Your task to perform on an android device: set default search engine in the chrome app Image 0: 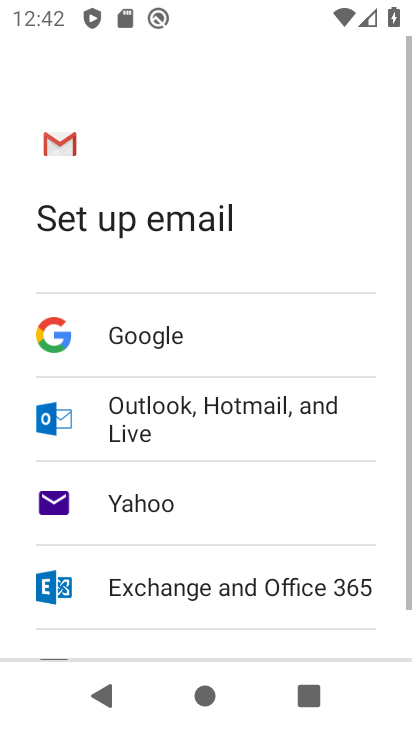
Step 0: press back button
Your task to perform on an android device: set default search engine in the chrome app Image 1: 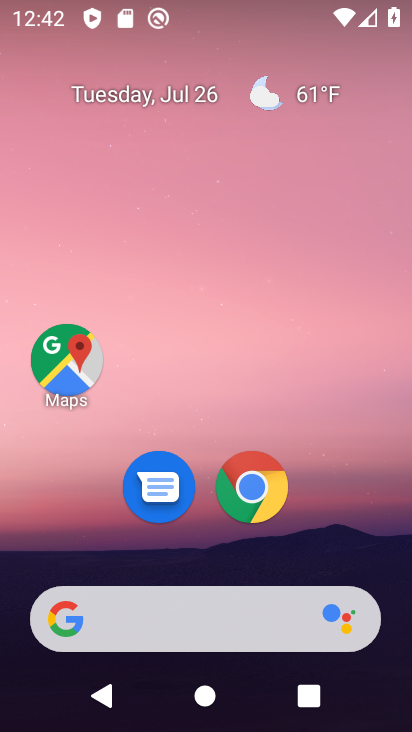
Step 1: click (249, 487)
Your task to perform on an android device: set default search engine in the chrome app Image 2: 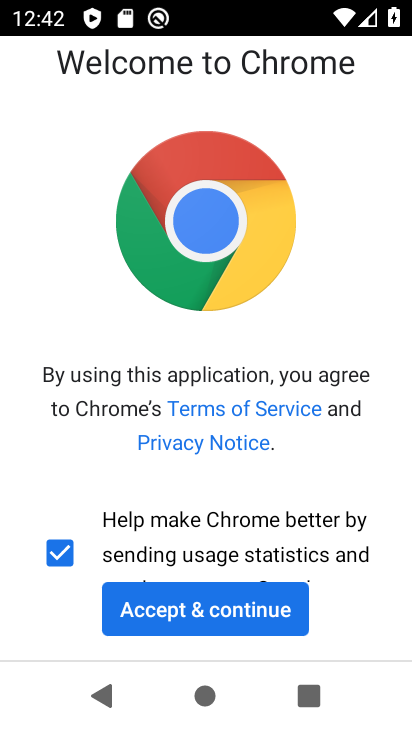
Step 2: click (180, 592)
Your task to perform on an android device: set default search engine in the chrome app Image 3: 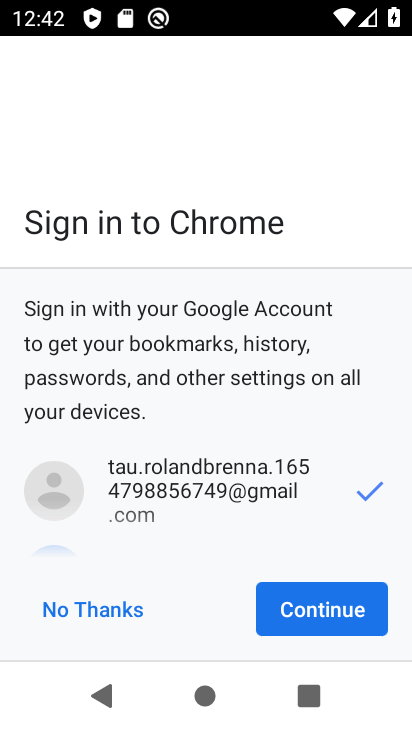
Step 3: click (350, 610)
Your task to perform on an android device: set default search engine in the chrome app Image 4: 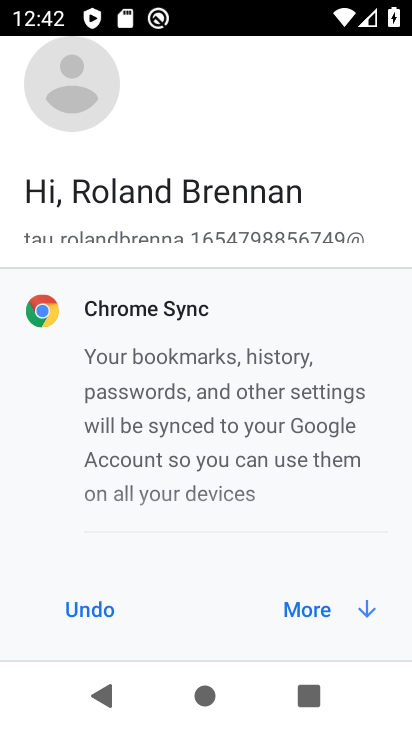
Step 4: click (345, 608)
Your task to perform on an android device: set default search engine in the chrome app Image 5: 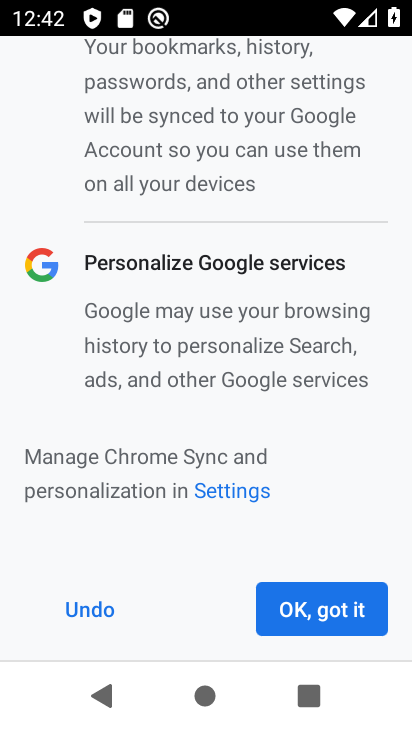
Step 5: click (343, 610)
Your task to perform on an android device: set default search engine in the chrome app Image 6: 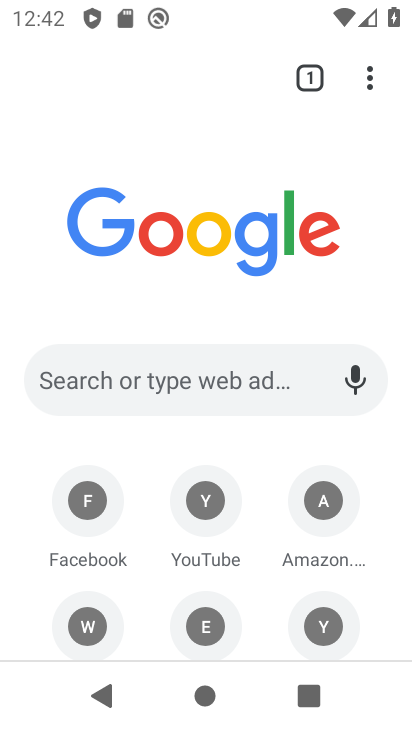
Step 6: drag from (360, 78) to (128, 550)
Your task to perform on an android device: set default search engine in the chrome app Image 7: 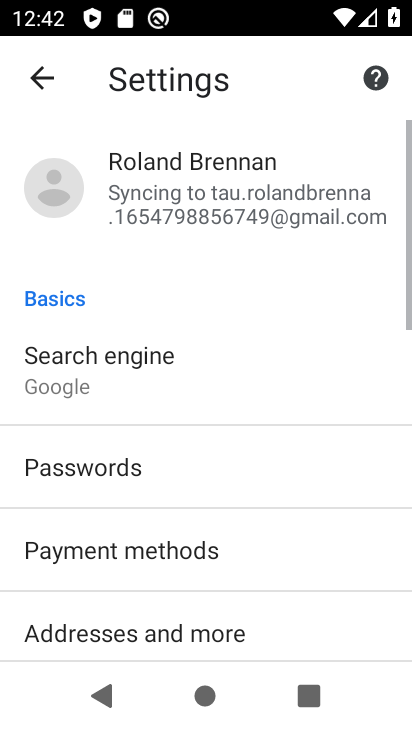
Step 7: drag from (109, 599) to (191, 228)
Your task to perform on an android device: set default search engine in the chrome app Image 8: 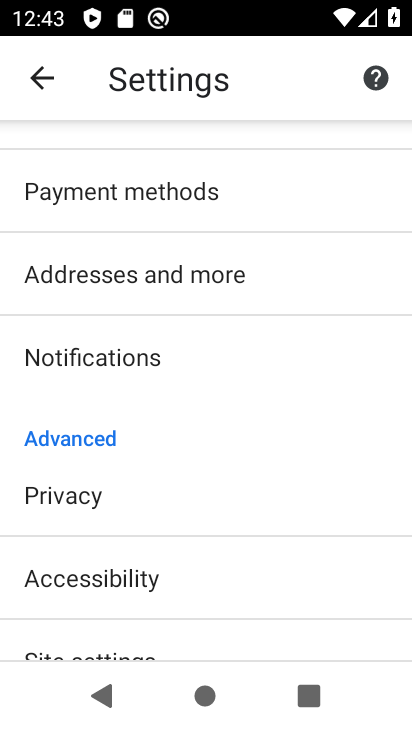
Step 8: drag from (195, 201) to (187, 706)
Your task to perform on an android device: set default search engine in the chrome app Image 9: 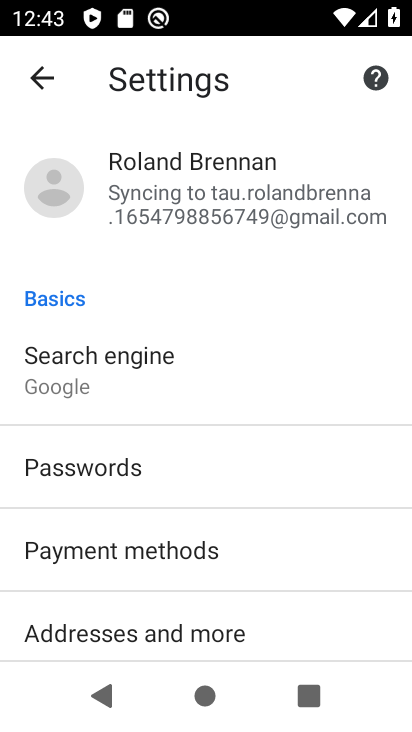
Step 9: click (119, 374)
Your task to perform on an android device: set default search engine in the chrome app Image 10: 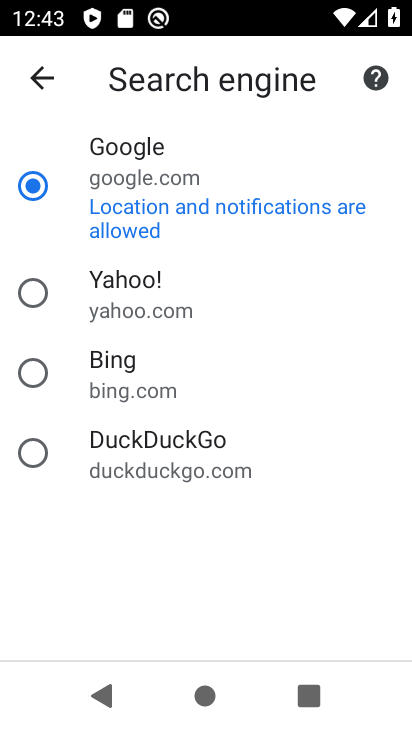
Step 10: click (33, 287)
Your task to perform on an android device: set default search engine in the chrome app Image 11: 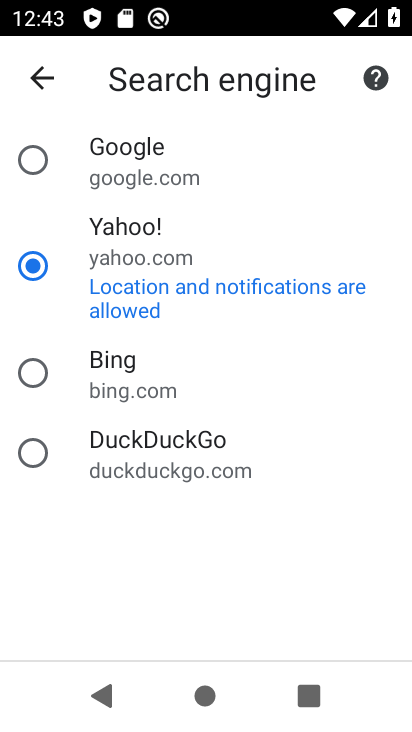
Step 11: task complete